Your task to perform on an android device: Open accessibility settings Image 0: 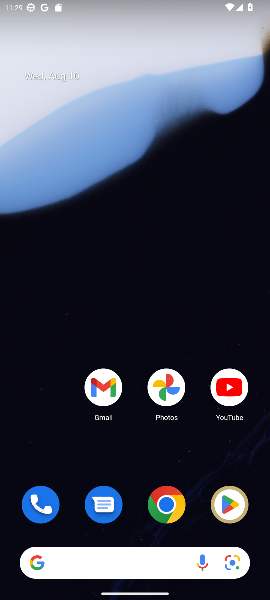
Step 0: press home button
Your task to perform on an android device: Open accessibility settings Image 1: 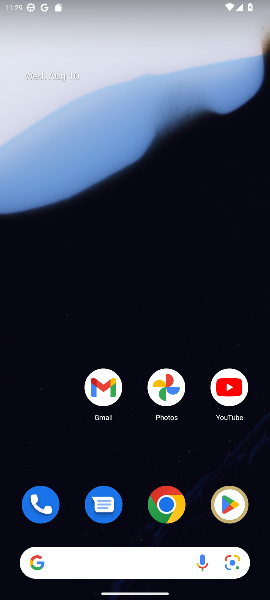
Step 1: drag from (71, 449) to (127, 73)
Your task to perform on an android device: Open accessibility settings Image 2: 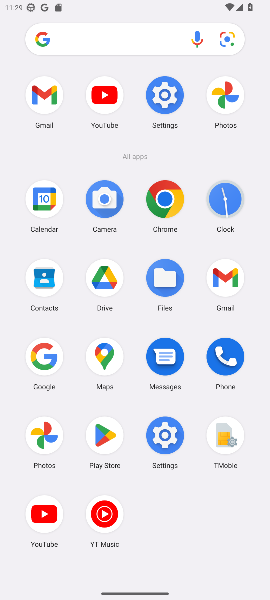
Step 2: click (155, 91)
Your task to perform on an android device: Open accessibility settings Image 3: 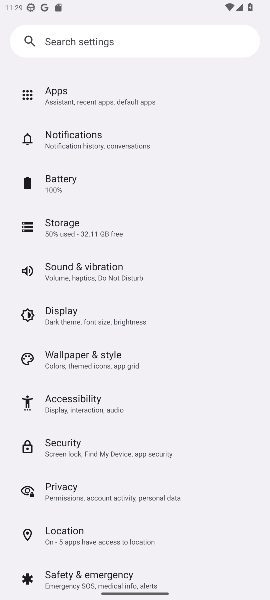
Step 3: click (80, 404)
Your task to perform on an android device: Open accessibility settings Image 4: 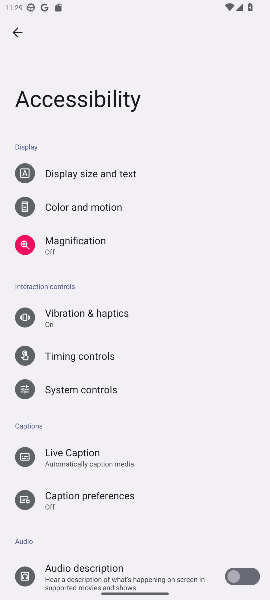
Step 4: task complete